Your task to perform on an android device: turn on the 24-hour format for clock Image 0: 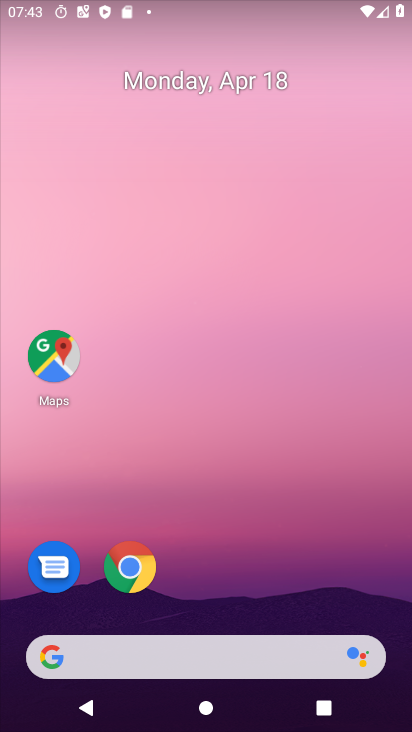
Step 0: drag from (301, 476) to (285, 22)
Your task to perform on an android device: turn on the 24-hour format for clock Image 1: 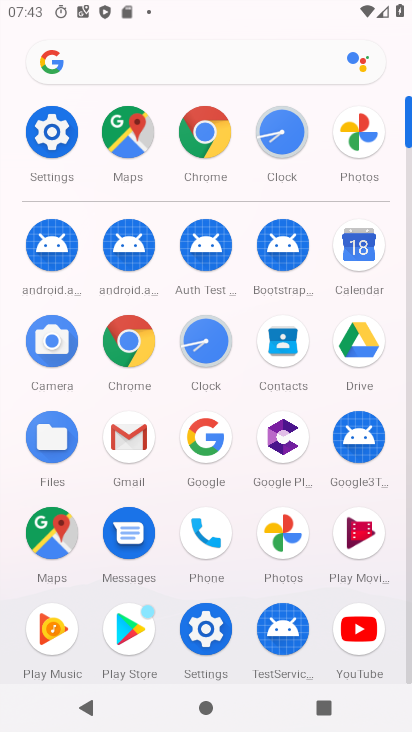
Step 1: click (276, 127)
Your task to perform on an android device: turn on the 24-hour format for clock Image 2: 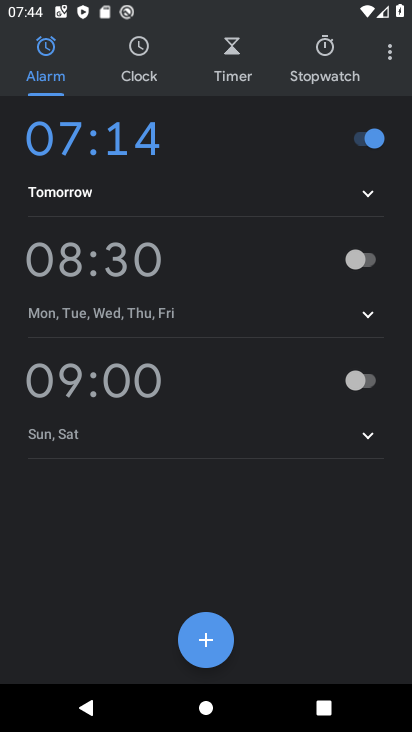
Step 2: click (388, 63)
Your task to perform on an android device: turn on the 24-hour format for clock Image 3: 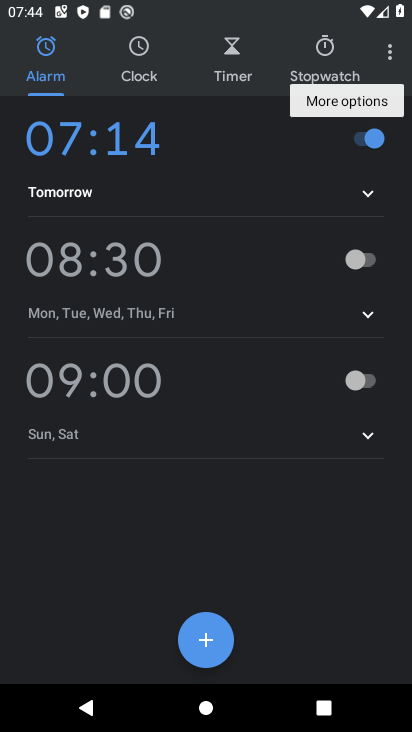
Step 3: click (388, 63)
Your task to perform on an android device: turn on the 24-hour format for clock Image 4: 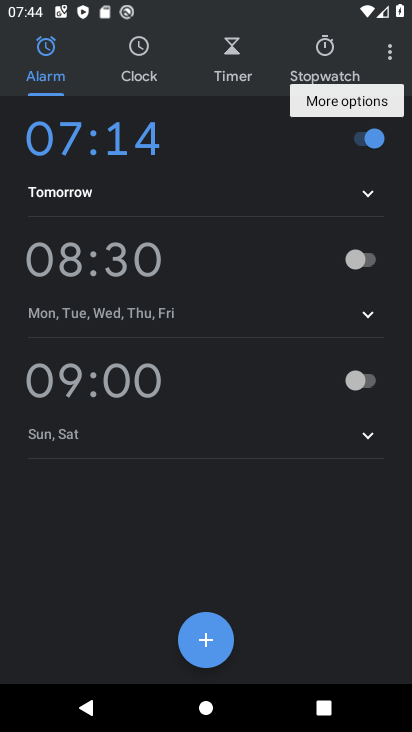
Step 4: click (388, 60)
Your task to perform on an android device: turn on the 24-hour format for clock Image 5: 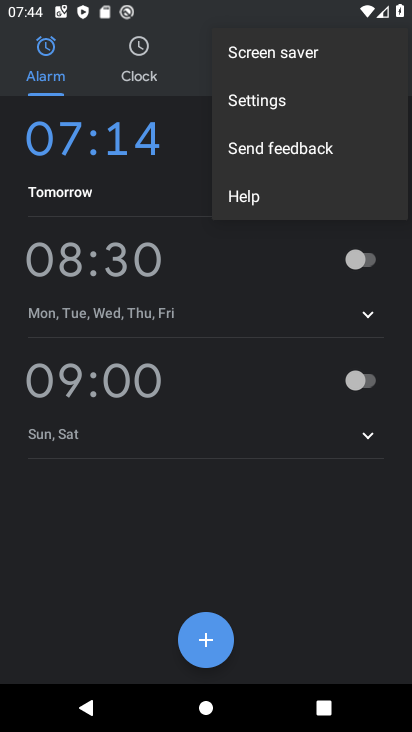
Step 5: click (305, 107)
Your task to perform on an android device: turn on the 24-hour format for clock Image 6: 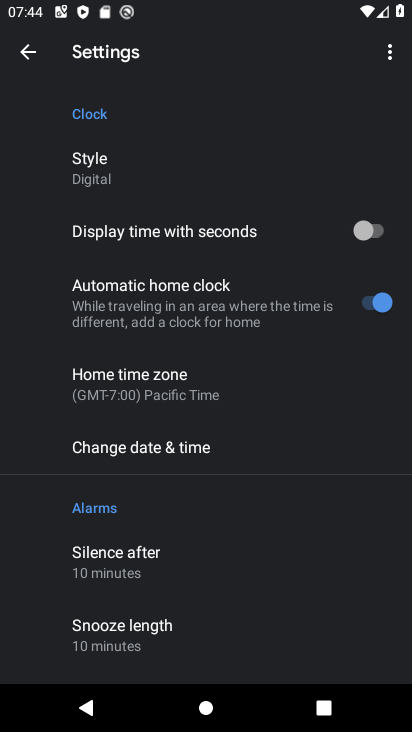
Step 6: click (135, 443)
Your task to perform on an android device: turn on the 24-hour format for clock Image 7: 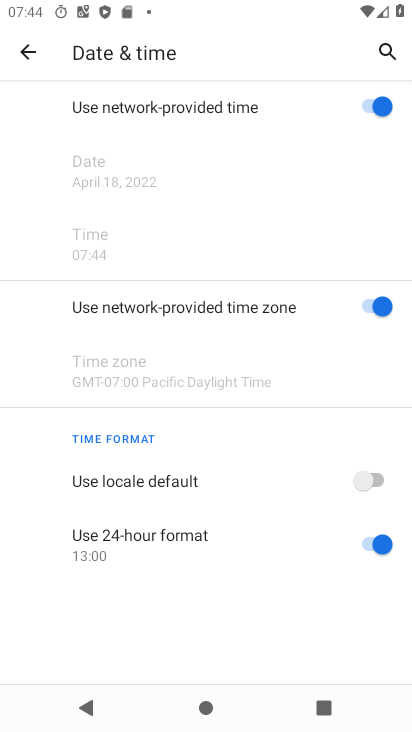
Step 7: task complete